Your task to perform on an android device: change the clock style Image 0: 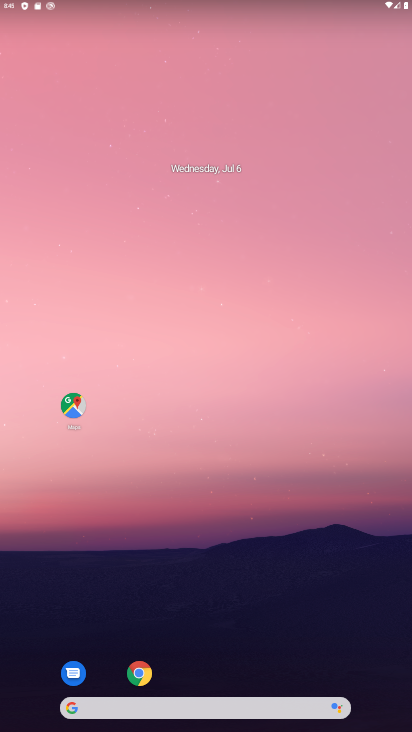
Step 0: drag from (220, 632) to (255, 130)
Your task to perform on an android device: change the clock style Image 1: 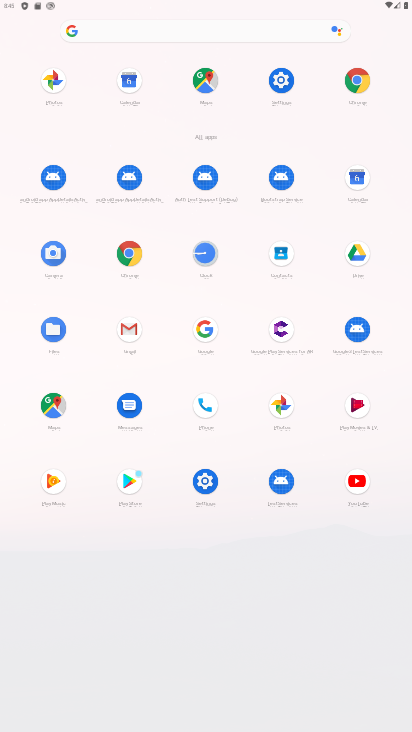
Step 1: click (200, 246)
Your task to perform on an android device: change the clock style Image 2: 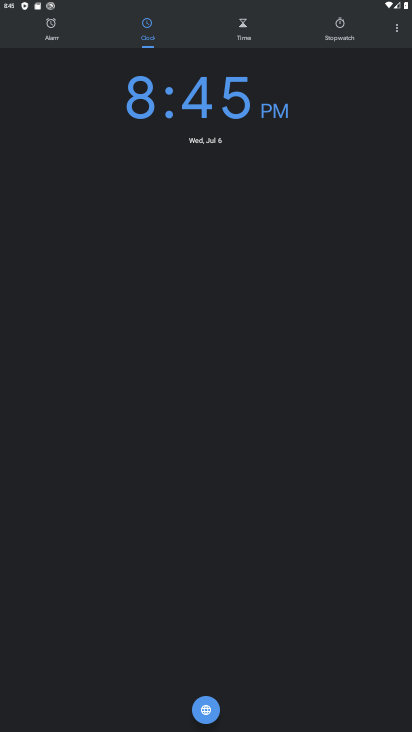
Step 2: click (402, 22)
Your task to perform on an android device: change the clock style Image 3: 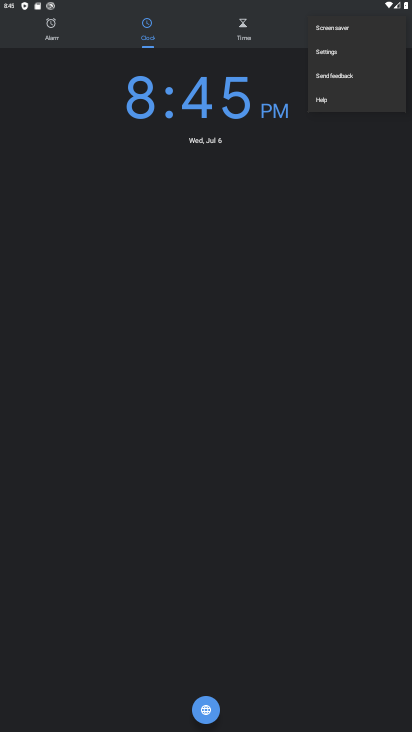
Step 3: click (328, 55)
Your task to perform on an android device: change the clock style Image 4: 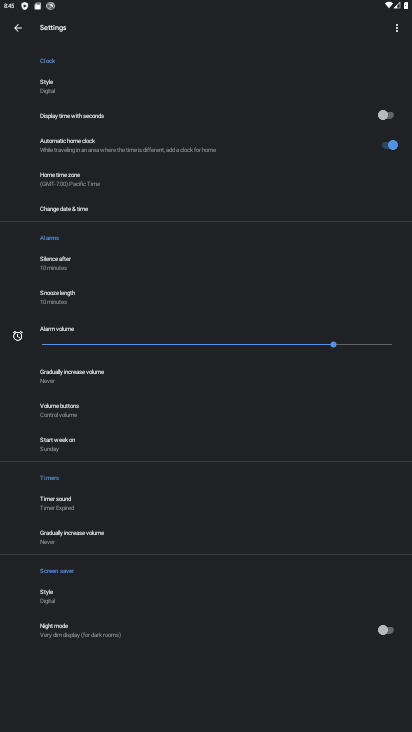
Step 4: click (57, 79)
Your task to perform on an android device: change the clock style Image 5: 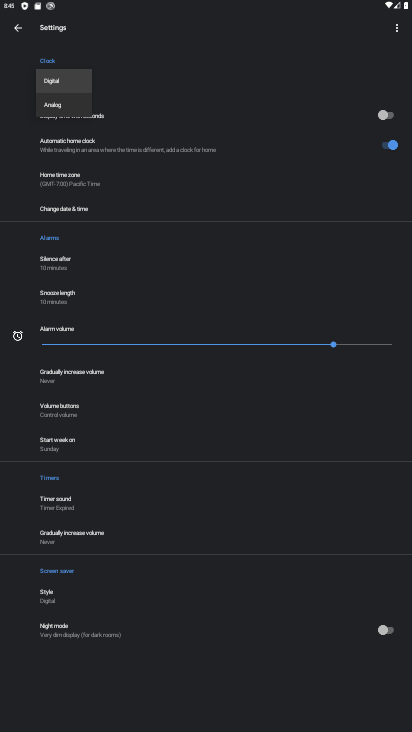
Step 5: click (74, 101)
Your task to perform on an android device: change the clock style Image 6: 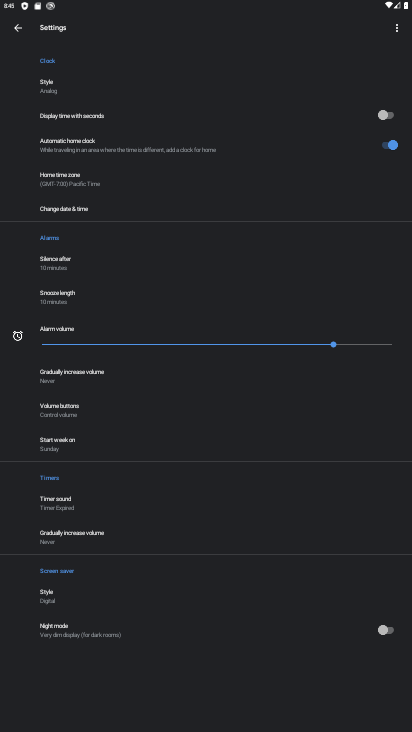
Step 6: task complete